Your task to perform on an android device: Search for Mexican restaurants on Maps Image 0: 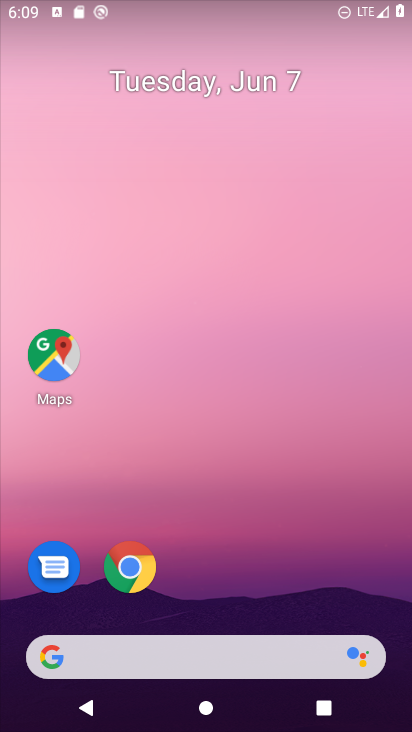
Step 0: drag from (335, 679) to (329, 146)
Your task to perform on an android device: Search for Mexican restaurants on Maps Image 1: 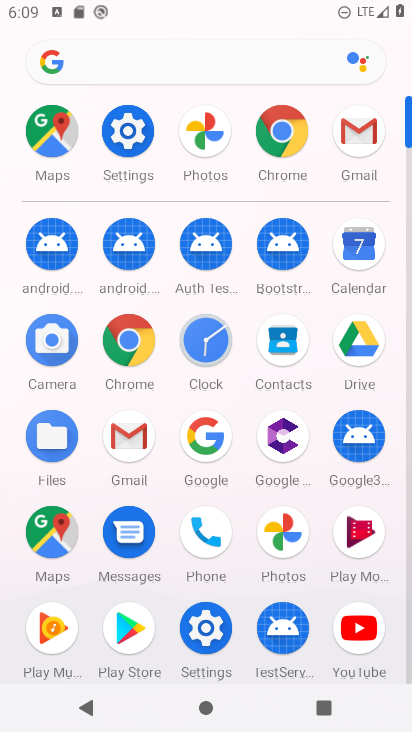
Step 1: click (56, 518)
Your task to perform on an android device: Search for Mexican restaurants on Maps Image 2: 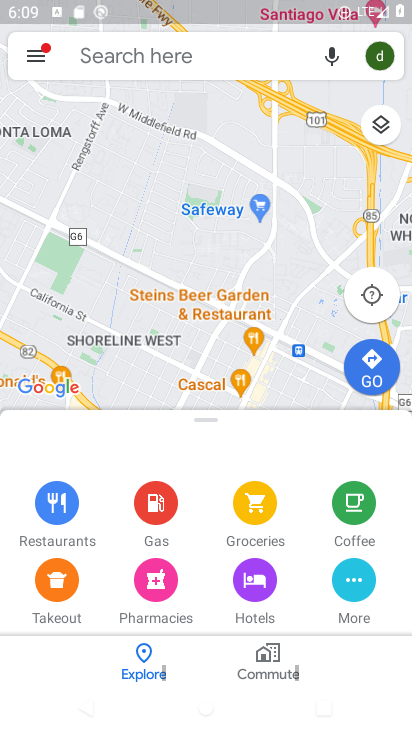
Step 2: click (27, 45)
Your task to perform on an android device: Search for Mexican restaurants on Maps Image 3: 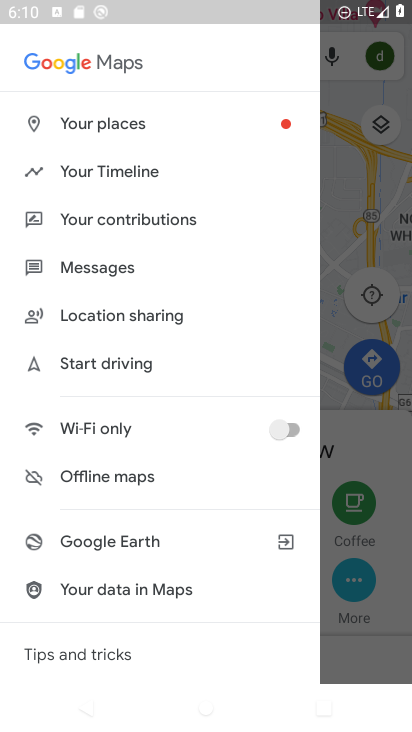
Step 3: click (348, 76)
Your task to perform on an android device: Search for Mexican restaurants on Maps Image 4: 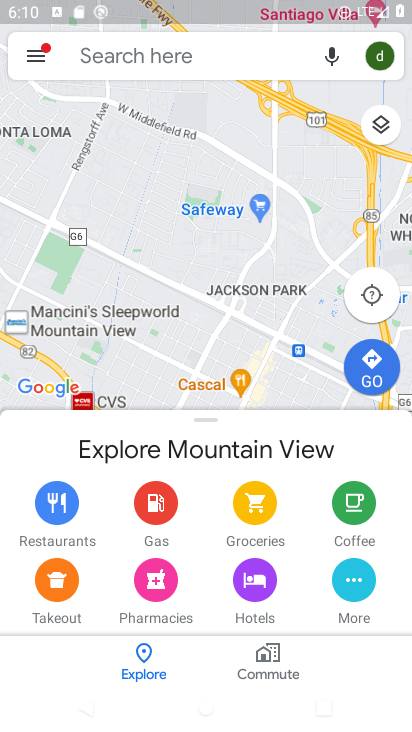
Step 4: click (248, 61)
Your task to perform on an android device: Search for Mexican restaurants on Maps Image 5: 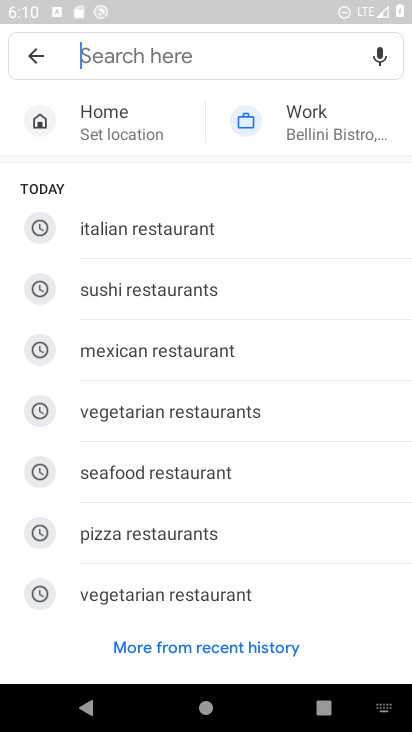
Step 5: click (117, 367)
Your task to perform on an android device: Search for Mexican restaurants on Maps Image 6: 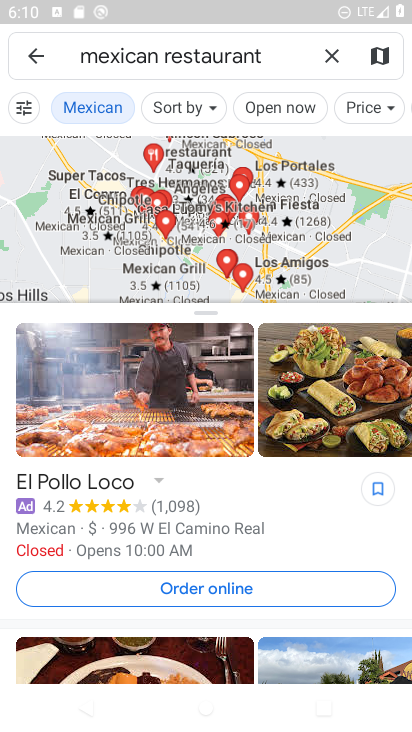
Step 6: task complete